Your task to perform on an android device: open sync settings in chrome Image 0: 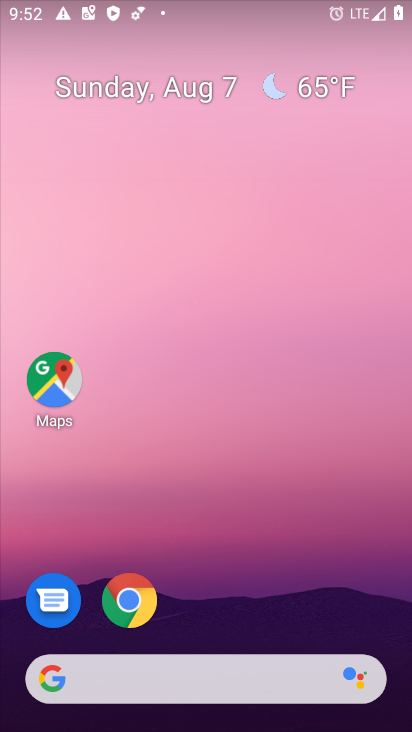
Step 0: click (129, 605)
Your task to perform on an android device: open sync settings in chrome Image 1: 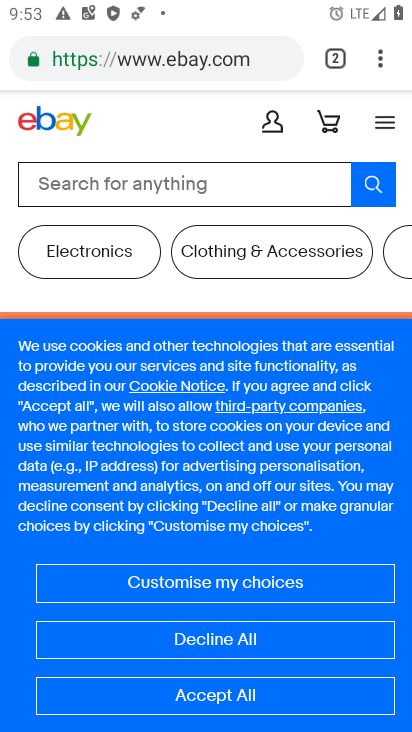
Step 1: click (375, 69)
Your task to perform on an android device: open sync settings in chrome Image 2: 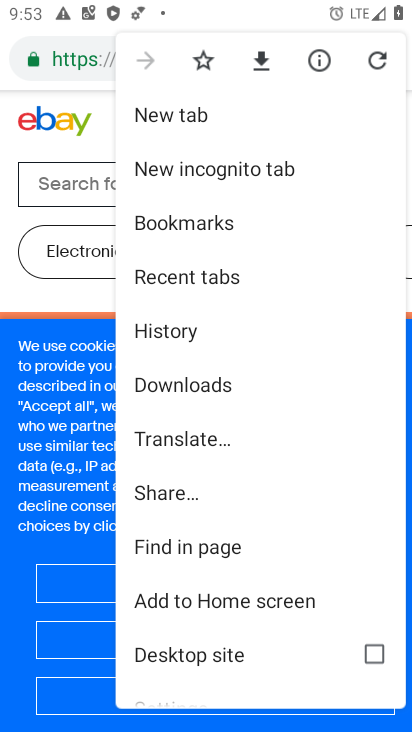
Step 2: drag from (224, 600) to (256, 282)
Your task to perform on an android device: open sync settings in chrome Image 3: 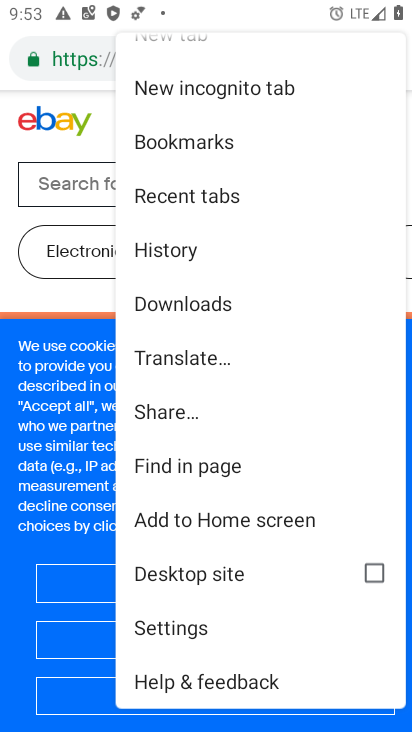
Step 3: click (179, 626)
Your task to perform on an android device: open sync settings in chrome Image 4: 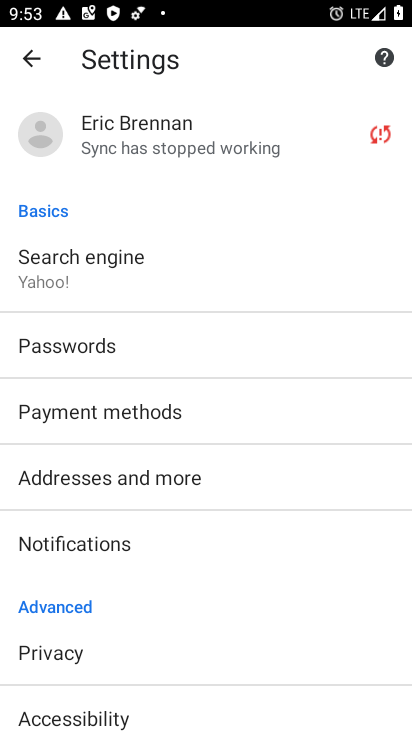
Step 4: click (171, 134)
Your task to perform on an android device: open sync settings in chrome Image 5: 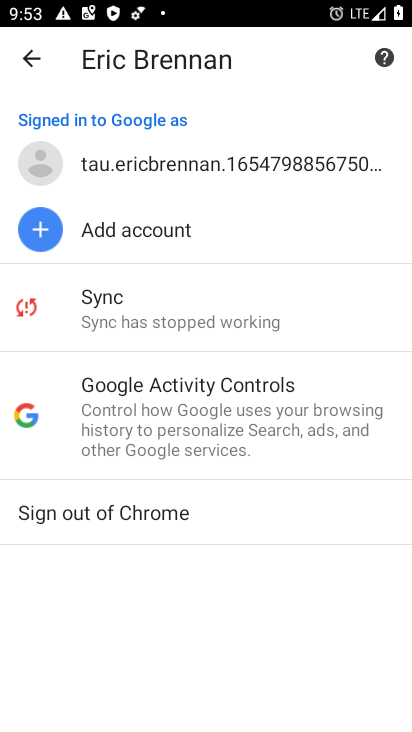
Step 5: click (154, 321)
Your task to perform on an android device: open sync settings in chrome Image 6: 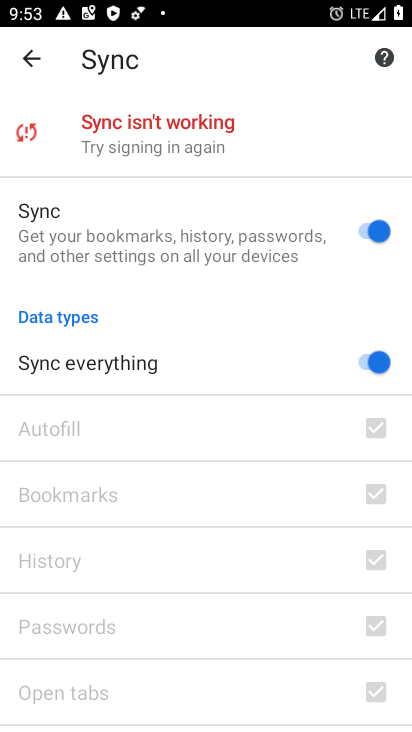
Step 6: task complete